Your task to perform on an android device: Is it going to rain tomorrow? Image 0: 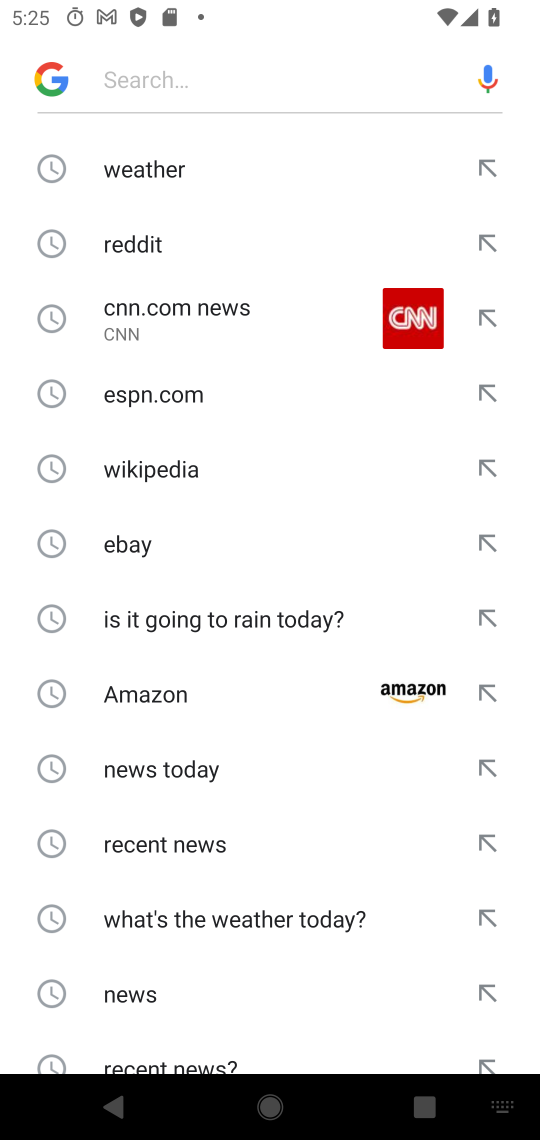
Step 0: press home button
Your task to perform on an android device: Is it going to rain tomorrow? Image 1: 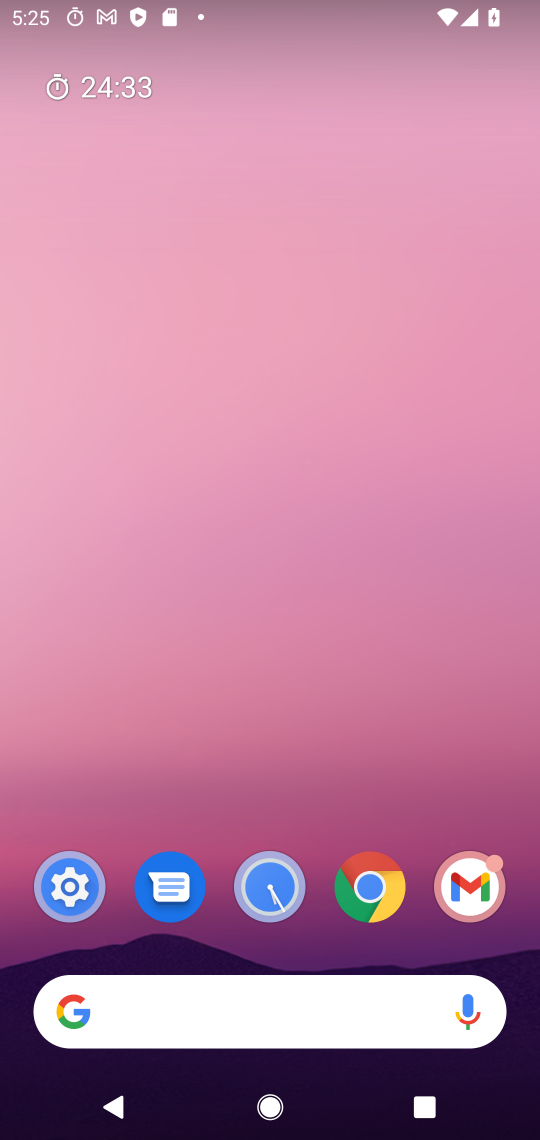
Step 1: drag from (512, 910) to (466, 108)
Your task to perform on an android device: Is it going to rain tomorrow? Image 2: 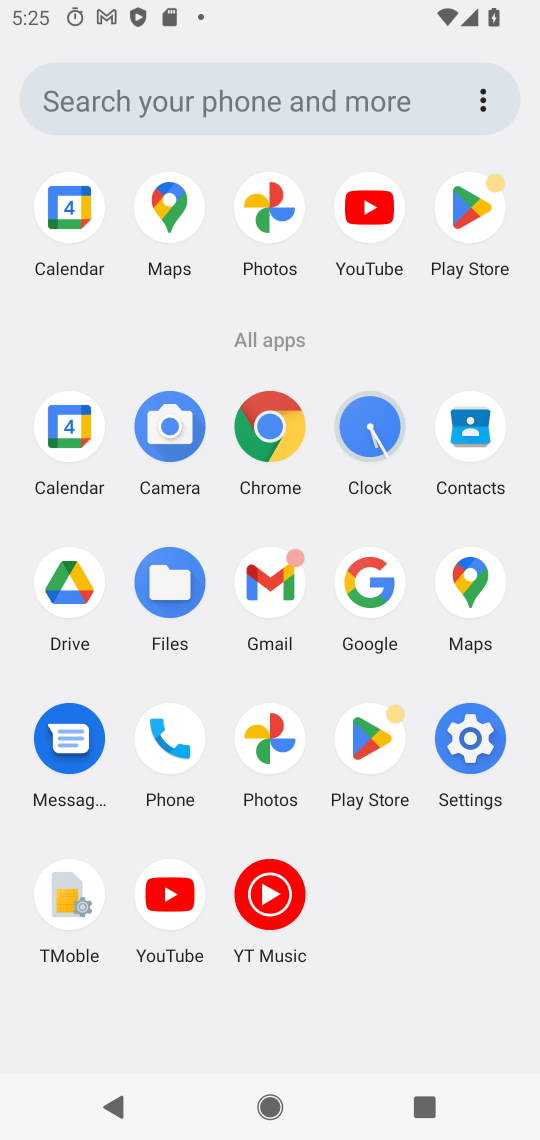
Step 2: click (373, 578)
Your task to perform on an android device: Is it going to rain tomorrow? Image 3: 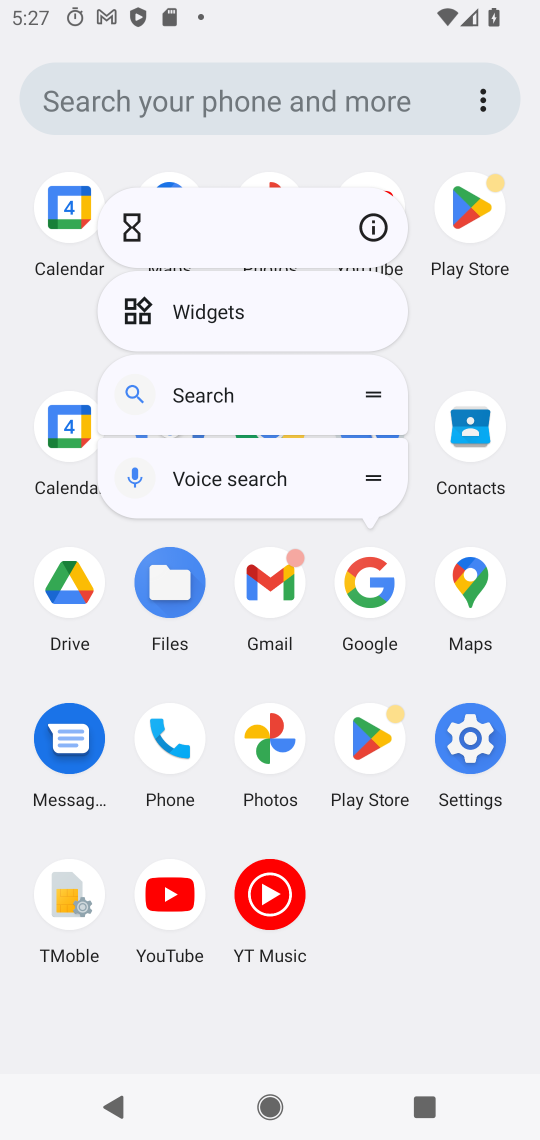
Step 3: click (360, 584)
Your task to perform on an android device: Is it going to rain tomorrow? Image 4: 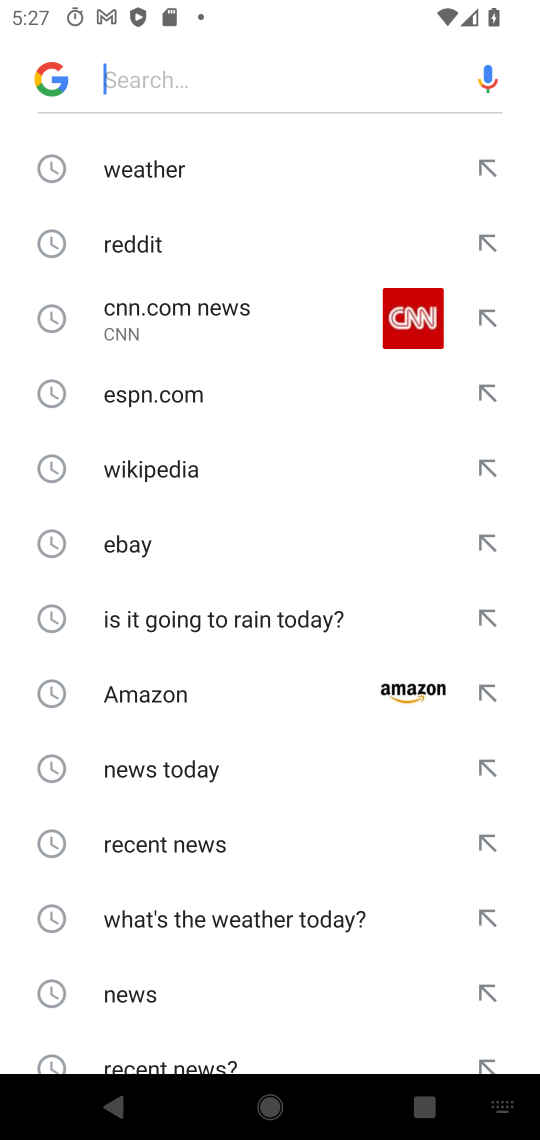
Step 4: press back button
Your task to perform on an android device: Is it going to rain tomorrow? Image 5: 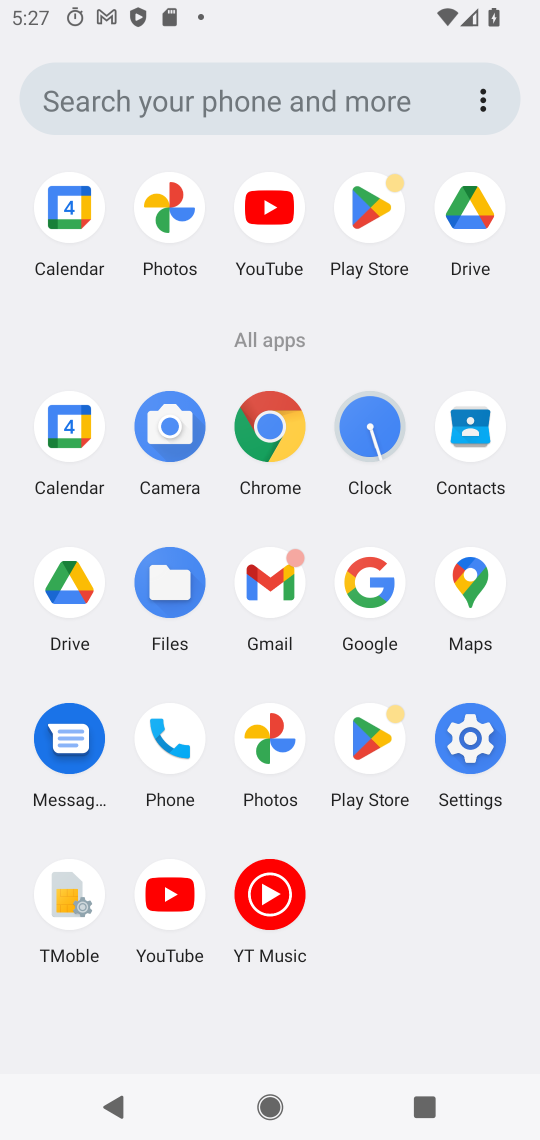
Step 5: click (366, 586)
Your task to perform on an android device: Is it going to rain tomorrow? Image 6: 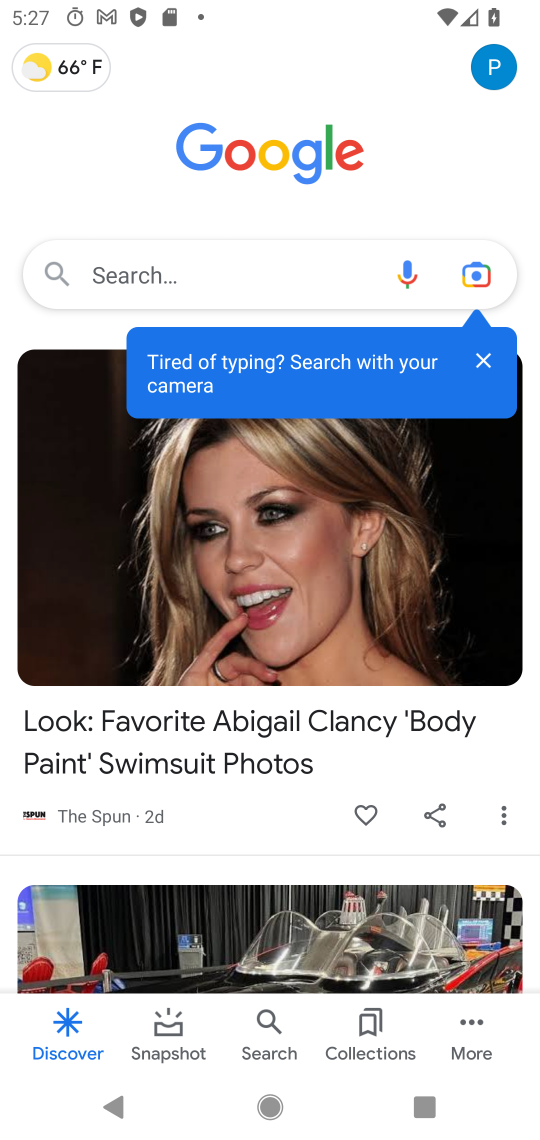
Step 6: task complete